Your task to perform on an android device: toggle notification dots Image 0: 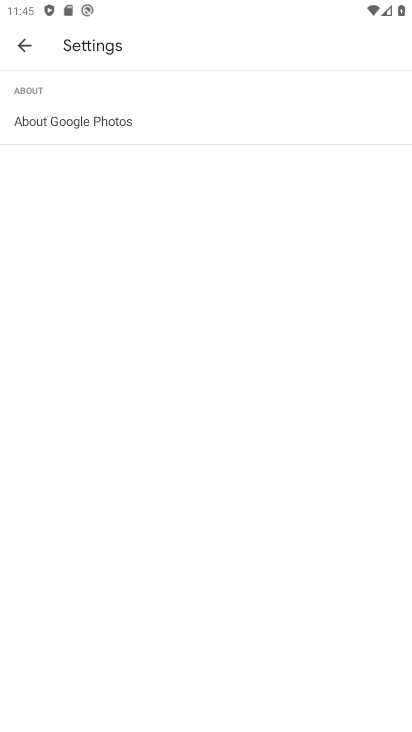
Step 0: press home button
Your task to perform on an android device: toggle notification dots Image 1: 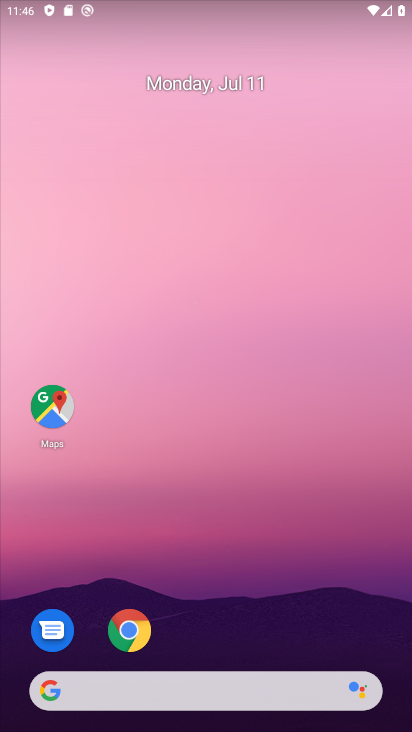
Step 1: drag from (207, 692) to (234, 259)
Your task to perform on an android device: toggle notification dots Image 2: 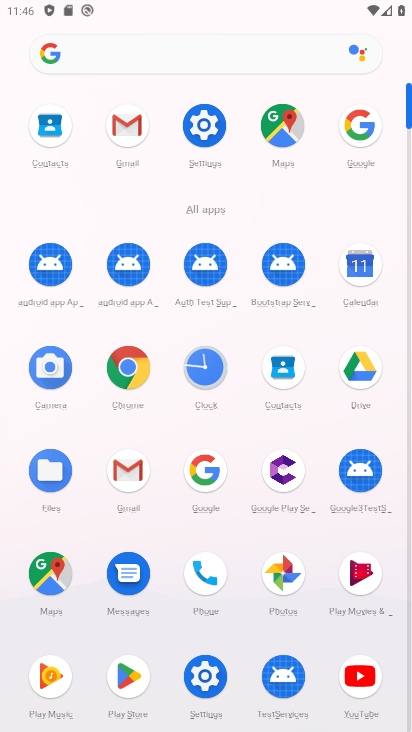
Step 2: click (205, 127)
Your task to perform on an android device: toggle notification dots Image 3: 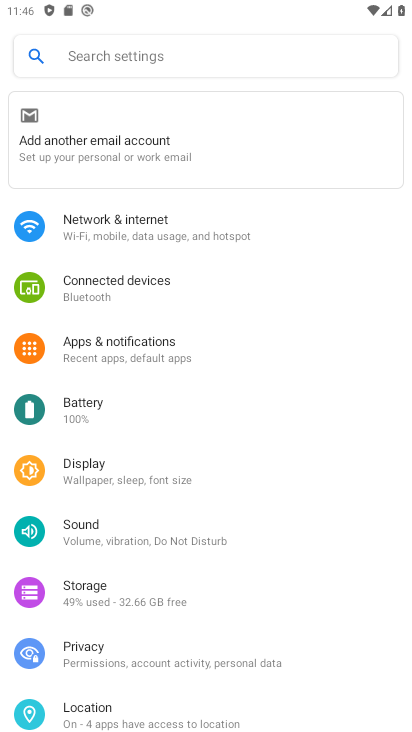
Step 3: click (116, 353)
Your task to perform on an android device: toggle notification dots Image 4: 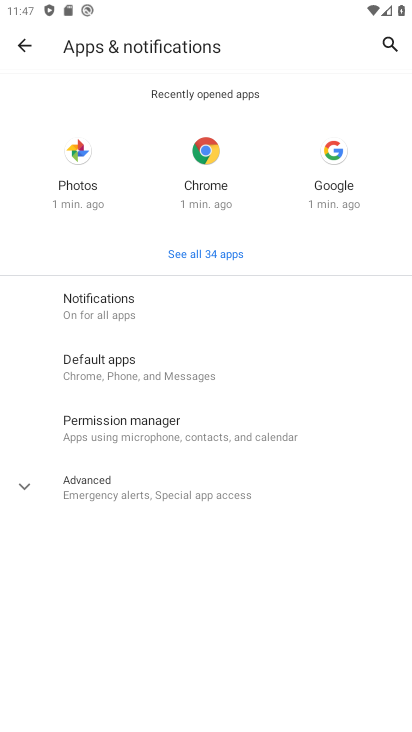
Step 4: click (96, 306)
Your task to perform on an android device: toggle notification dots Image 5: 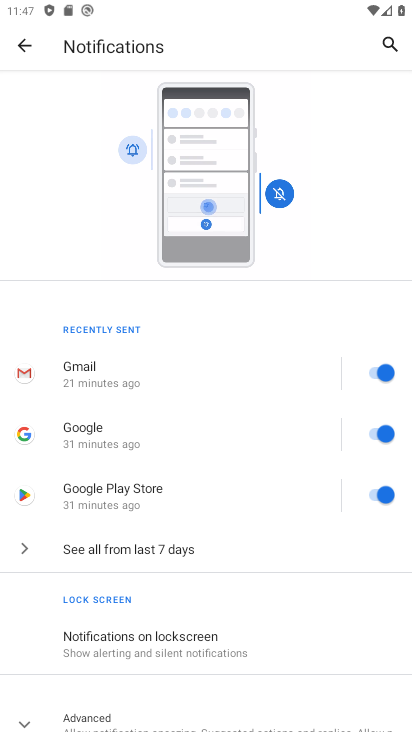
Step 5: drag from (161, 686) to (222, 520)
Your task to perform on an android device: toggle notification dots Image 6: 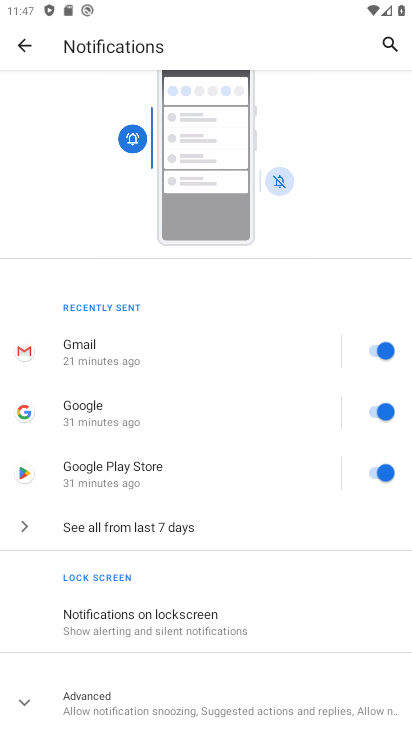
Step 6: click (127, 708)
Your task to perform on an android device: toggle notification dots Image 7: 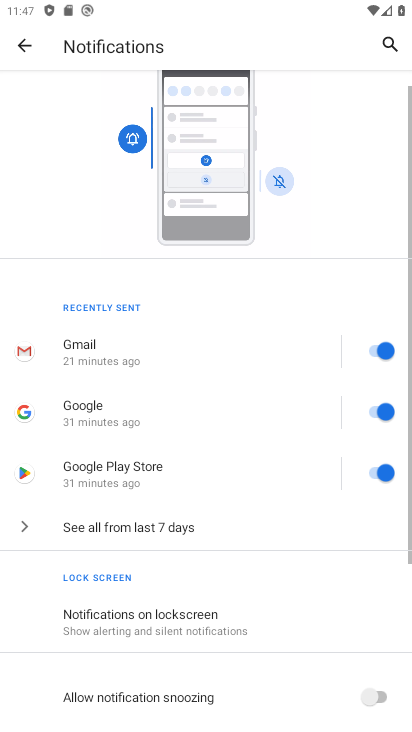
Step 7: drag from (118, 659) to (175, 531)
Your task to perform on an android device: toggle notification dots Image 8: 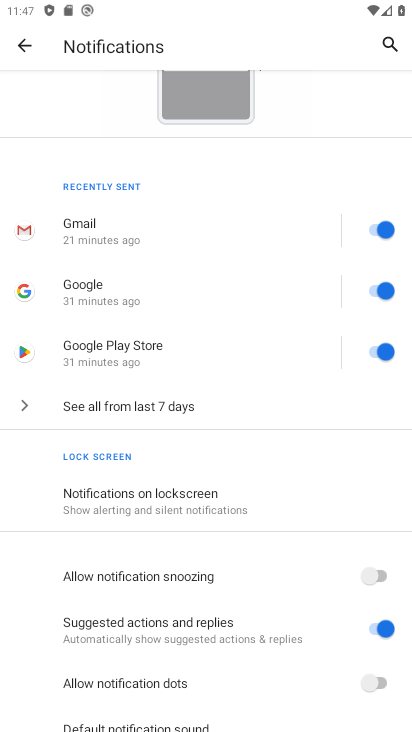
Step 8: drag from (129, 657) to (223, 527)
Your task to perform on an android device: toggle notification dots Image 9: 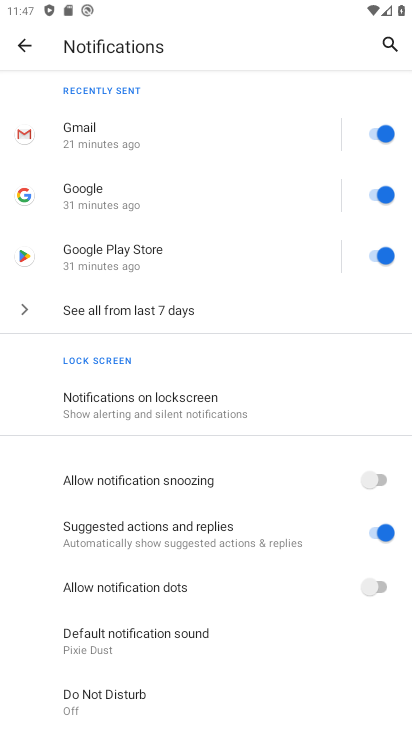
Step 9: click (366, 587)
Your task to perform on an android device: toggle notification dots Image 10: 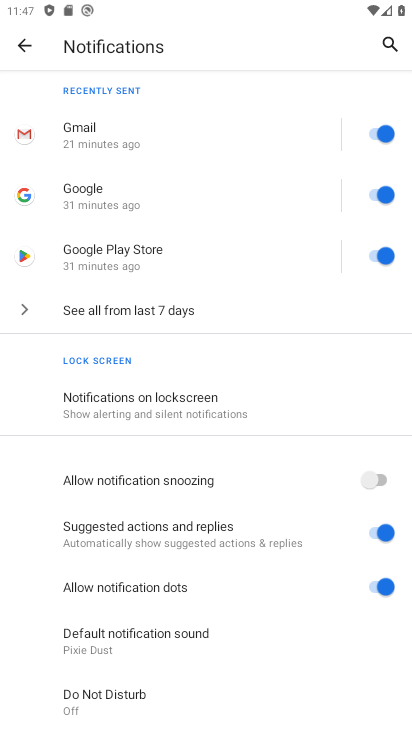
Step 10: task complete